Your task to perform on an android device: Open wifi settings Image 0: 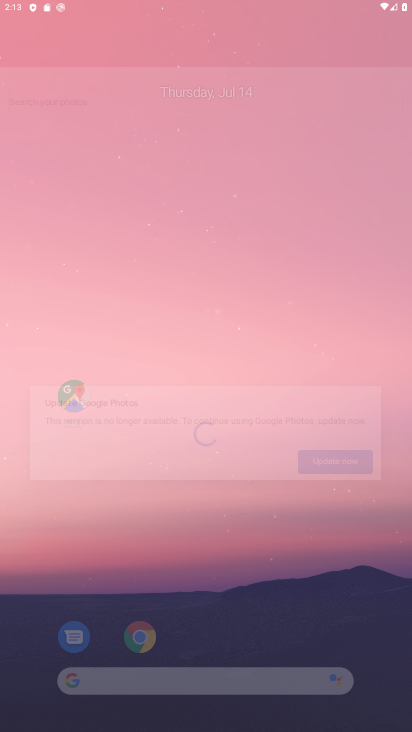
Step 0: press home button
Your task to perform on an android device: Open wifi settings Image 1: 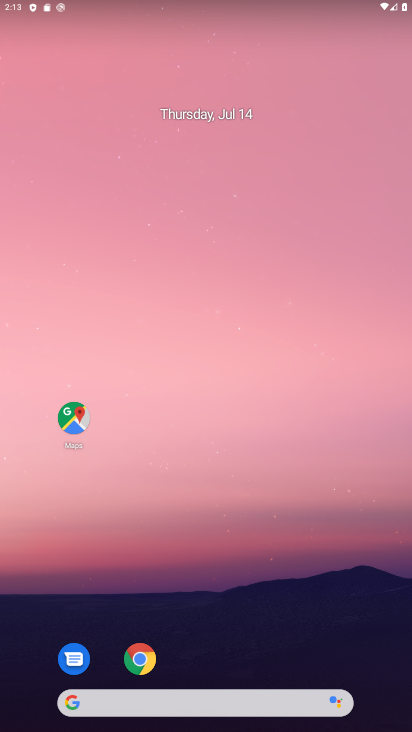
Step 1: drag from (244, 586) to (185, 64)
Your task to perform on an android device: Open wifi settings Image 2: 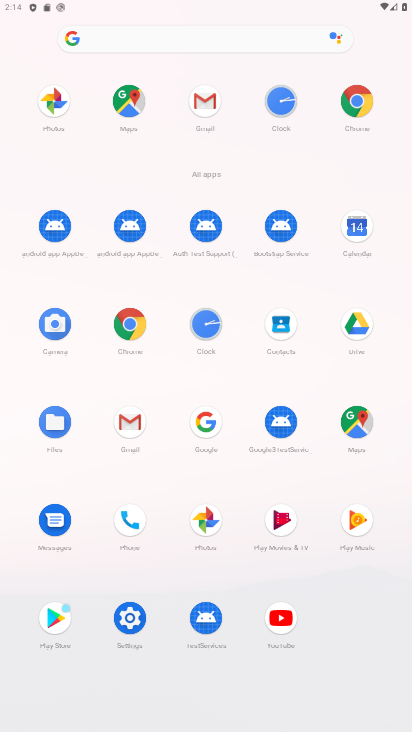
Step 2: click (128, 619)
Your task to perform on an android device: Open wifi settings Image 3: 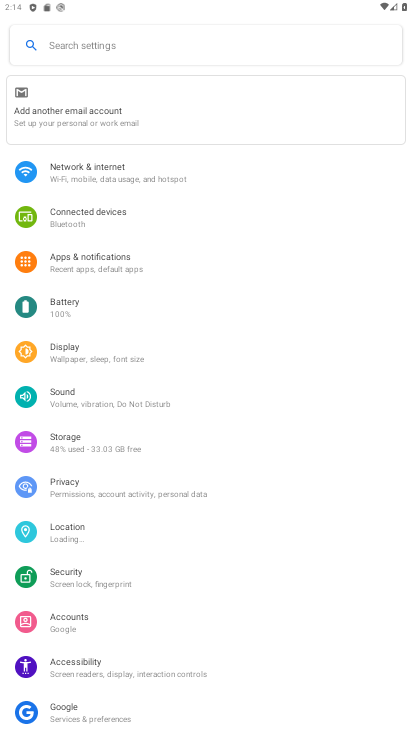
Step 3: click (83, 173)
Your task to perform on an android device: Open wifi settings Image 4: 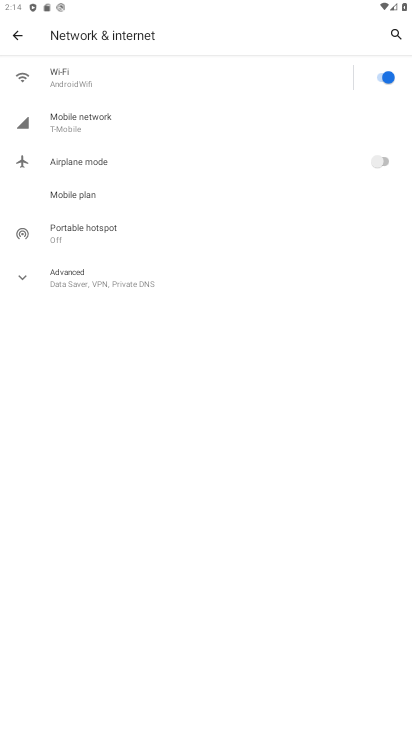
Step 4: click (23, 77)
Your task to perform on an android device: Open wifi settings Image 5: 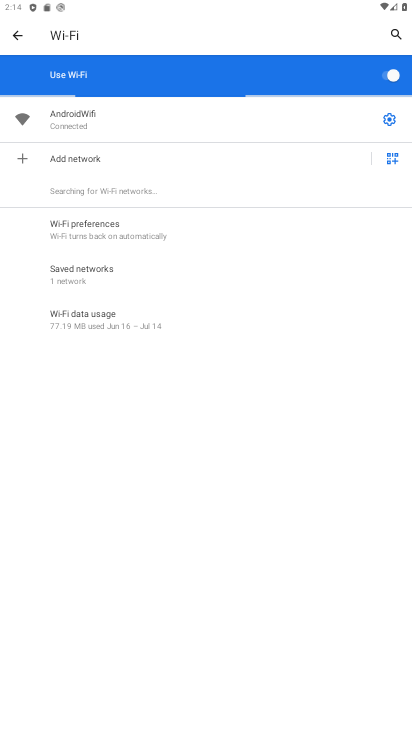
Step 5: task complete